Your task to perform on an android device: Go to eBay Image 0: 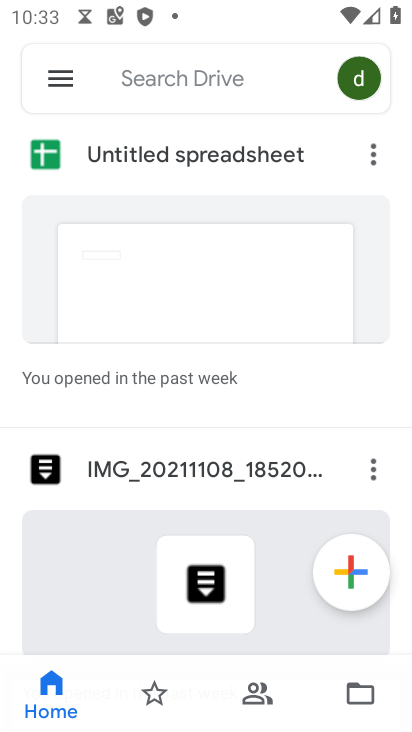
Step 0: press home button
Your task to perform on an android device: Go to eBay Image 1: 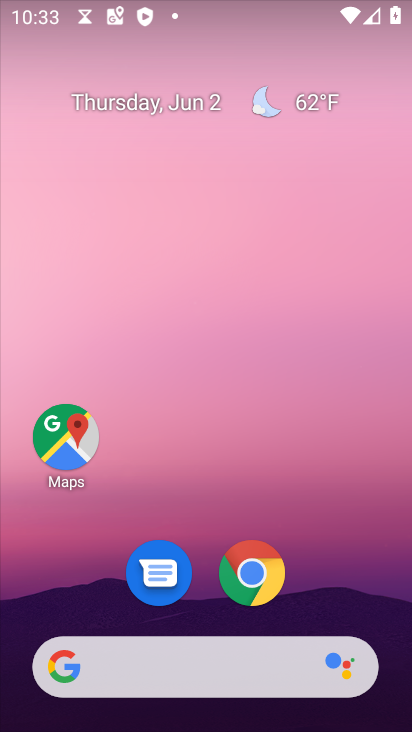
Step 1: drag from (334, 542) to (225, 147)
Your task to perform on an android device: Go to eBay Image 2: 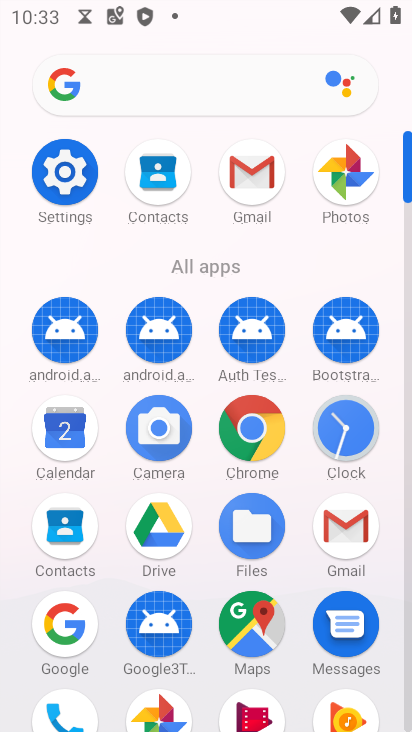
Step 2: click (249, 426)
Your task to perform on an android device: Go to eBay Image 3: 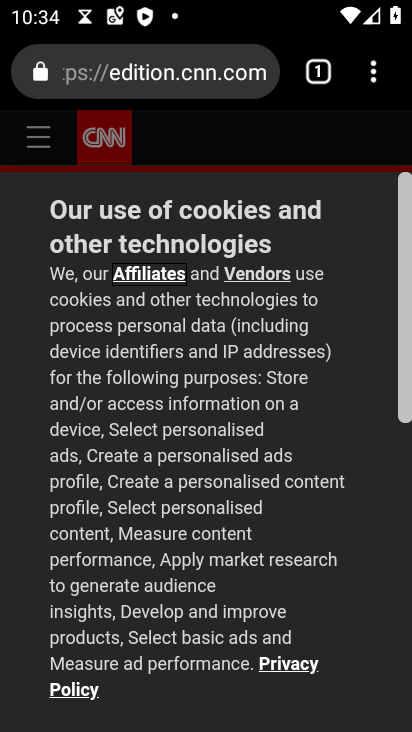
Step 3: click (219, 80)
Your task to perform on an android device: Go to eBay Image 4: 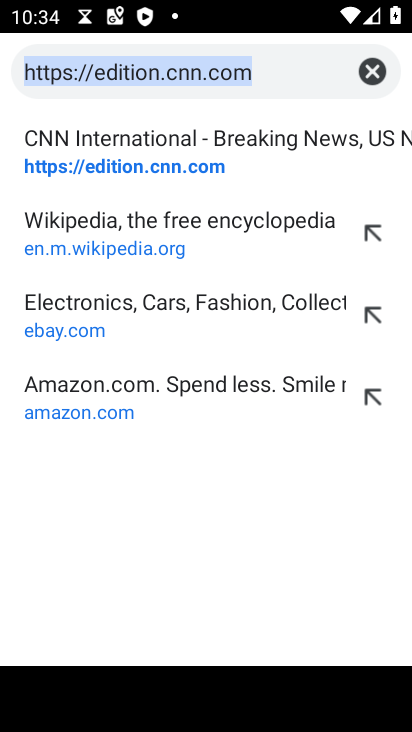
Step 4: click (369, 74)
Your task to perform on an android device: Go to eBay Image 5: 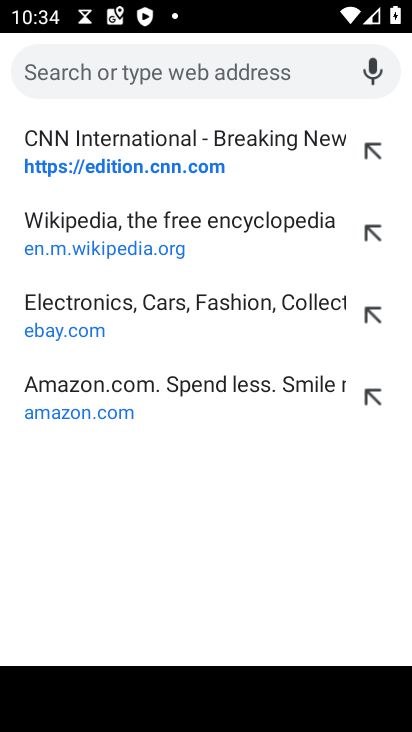
Step 5: type "eBay"
Your task to perform on an android device: Go to eBay Image 6: 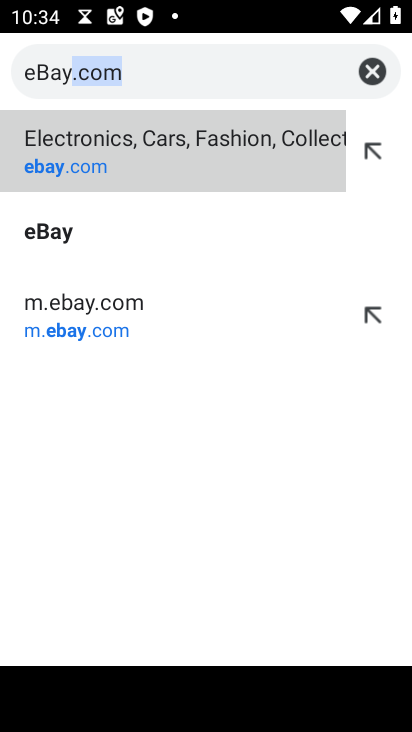
Step 6: click (110, 251)
Your task to perform on an android device: Go to eBay Image 7: 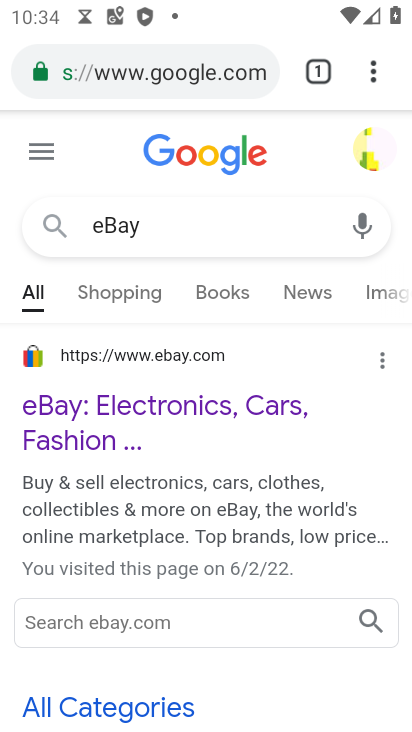
Step 7: click (113, 401)
Your task to perform on an android device: Go to eBay Image 8: 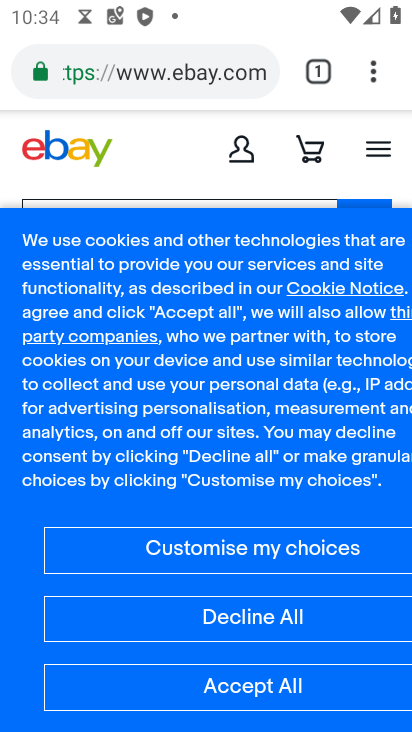
Step 8: click (255, 683)
Your task to perform on an android device: Go to eBay Image 9: 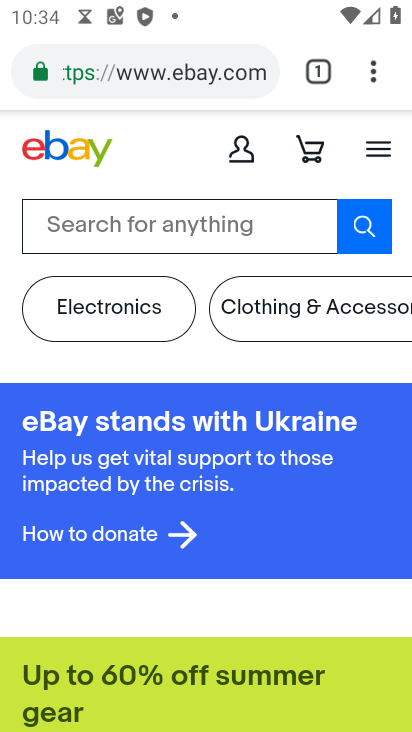
Step 9: task complete